Your task to perform on an android device: Add "usb-c to usb-b" to the cart on ebay.com Image 0: 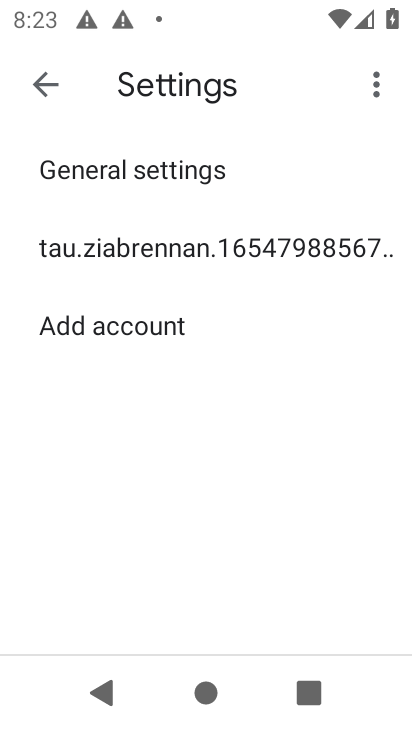
Step 0: press home button
Your task to perform on an android device: Add "usb-c to usb-b" to the cart on ebay.com Image 1: 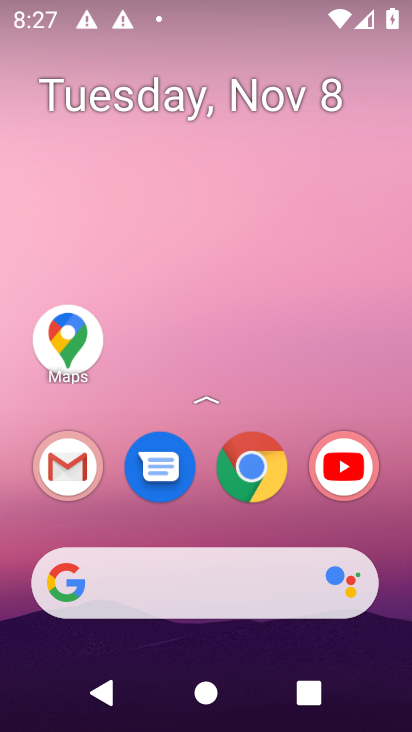
Step 1: click (216, 596)
Your task to perform on an android device: Add "usb-c to usb-b" to the cart on ebay.com Image 2: 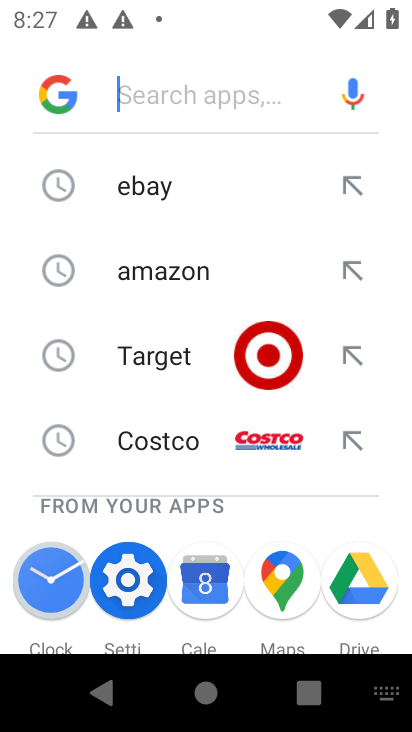
Step 2: click (217, 453)
Your task to perform on an android device: Add "usb-c to usb-b" to the cart on ebay.com Image 3: 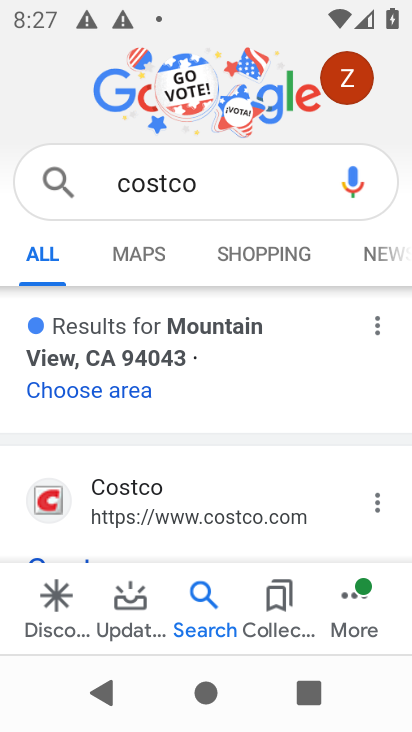
Step 3: click (203, 196)
Your task to perform on an android device: Add "usb-c to usb-b" to the cart on ebay.com Image 4: 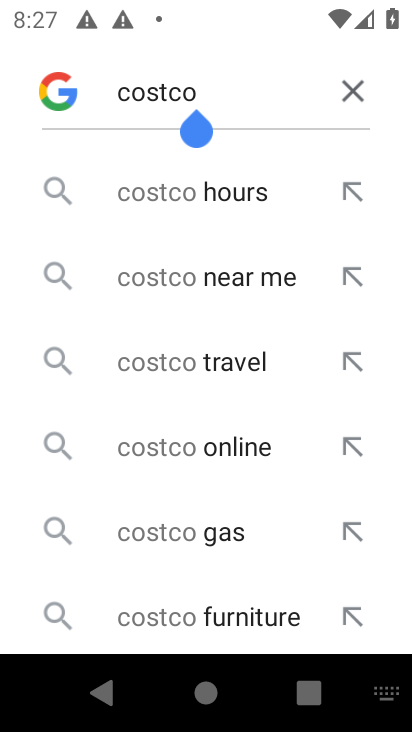
Step 4: click (353, 96)
Your task to perform on an android device: Add "usb-c to usb-b" to the cart on ebay.com Image 5: 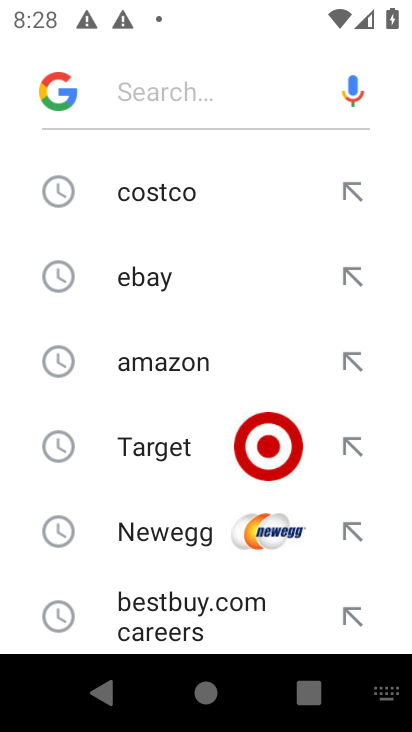
Step 5: type "ebay.com"
Your task to perform on an android device: Add "usb-c to usb-b" to the cart on ebay.com Image 6: 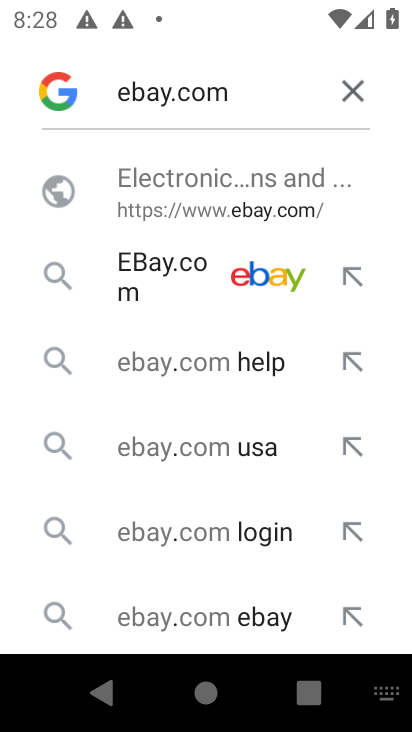
Step 6: click (187, 288)
Your task to perform on an android device: Add "usb-c to usb-b" to the cart on ebay.com Image 7: 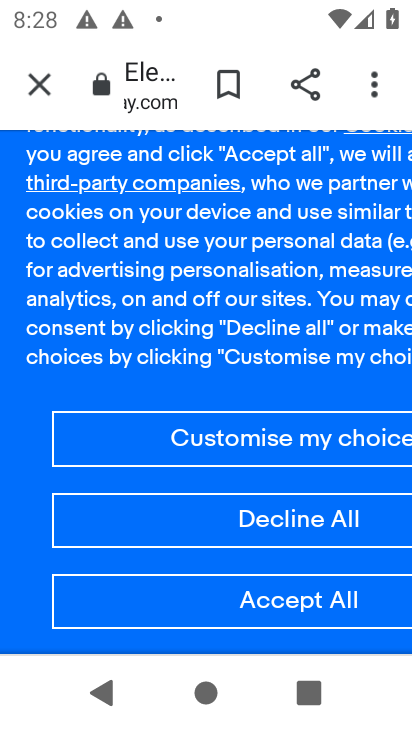
Step 7: task complete